Your task to perform on an android device: delete browsing data in the chrome app Image 0: 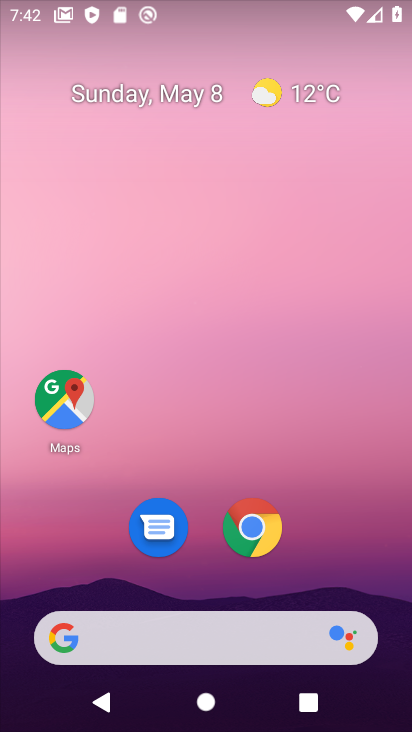
Step 0: drag from (323, 581) to (287, 206)
Your task to perform on an android device: delete browsing data in the chrome app Image 1: 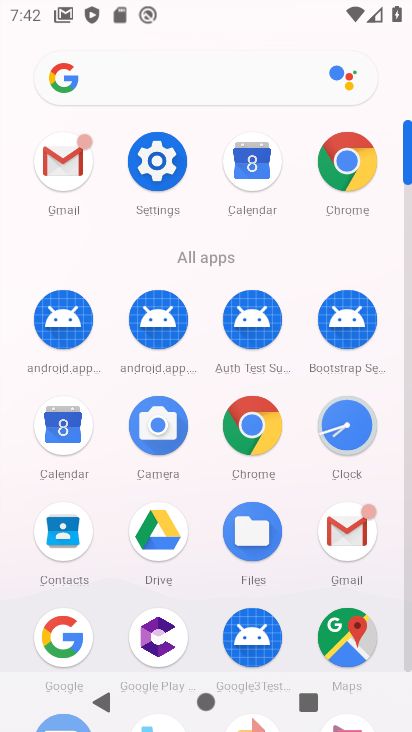
Step 1: click (328, 177)
Your task to perform on an android device: delete browsing data in the chrome app Image 2: 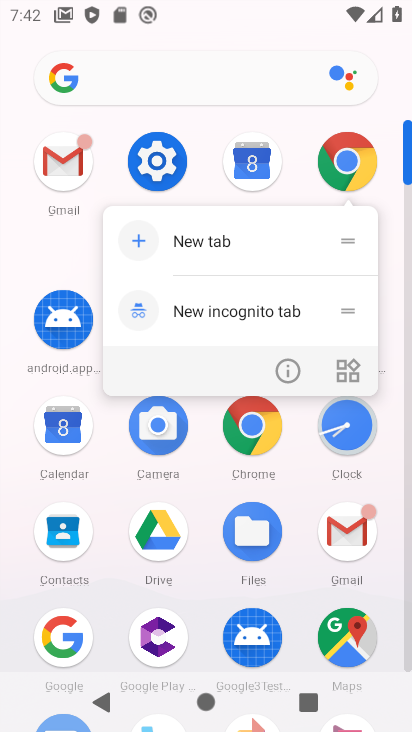
Step 2: click (328, 177)
Your task to perform on an android device: delete browsing data in the chrome app Image 3: 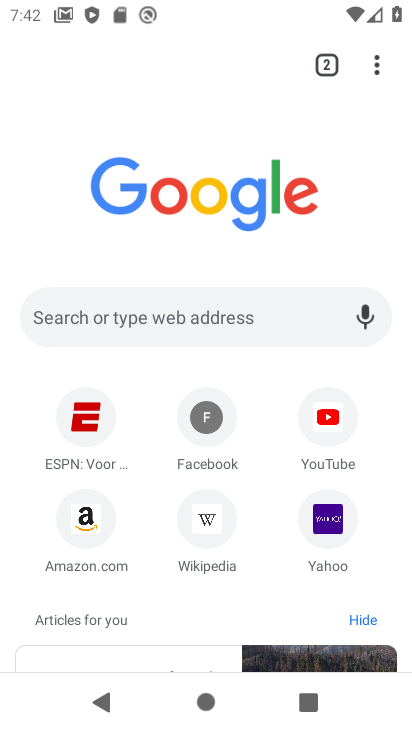
Step 3: drag from (374, 63) to (100, 375)
Your task to perform on an android device: delete browsing data in the chrome app Image 4: 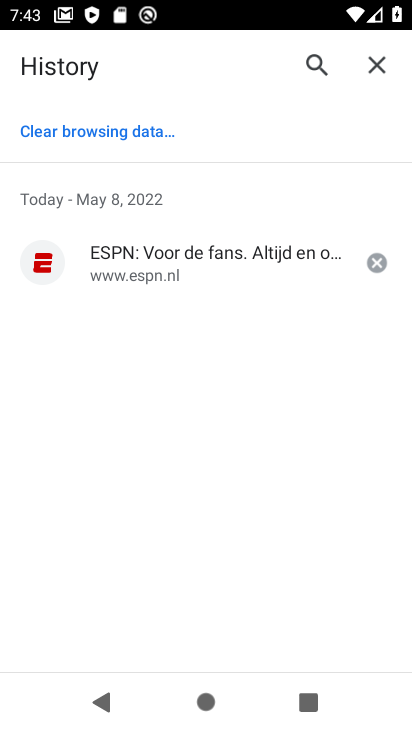
Step 4: click (105, 116)
Your task to perform on an android device: delete browsing data in the chrome app Image 5: 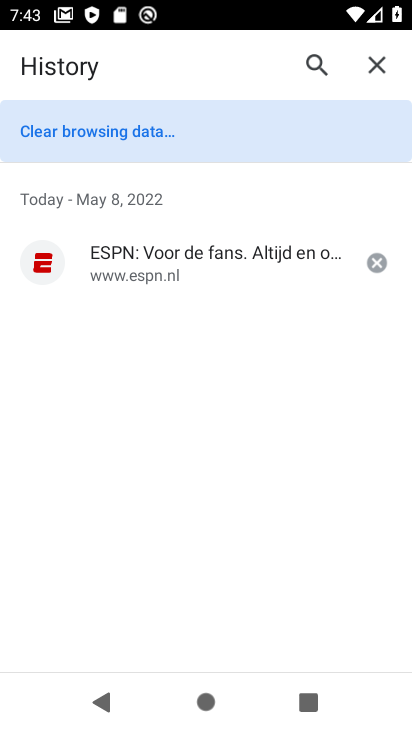
Step 5: click (102, 127)
Your task to perform on an android device: delete browsing data in the chrome app Image 6: 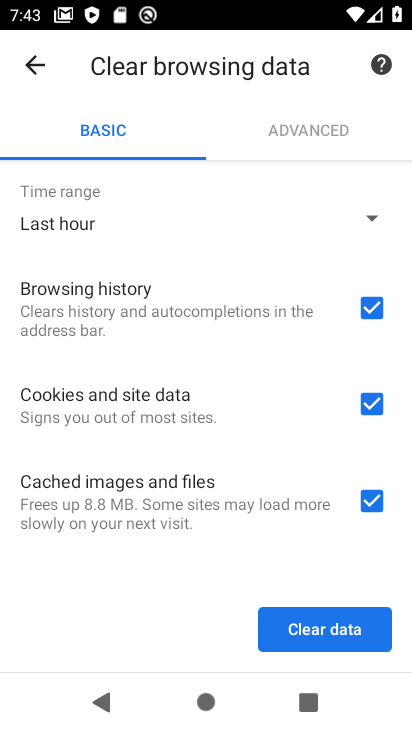
Step 6: click (333, 634)
Your task to perform on an android device: delete browsing data in the chrome app Image 7: 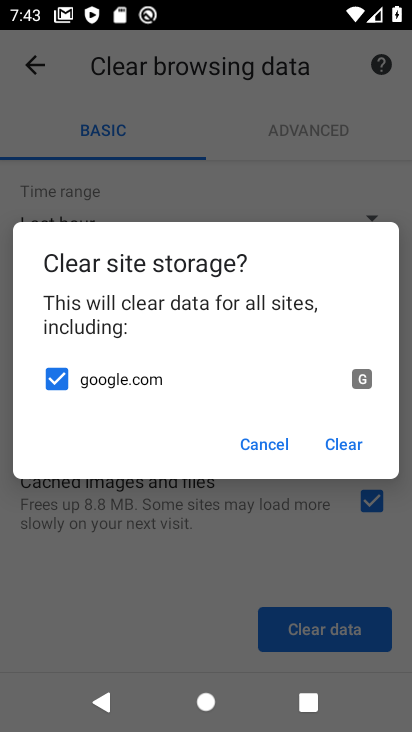
Step 7: click (344, 448)
Your task to perform on an android device: delete browsing data in the chrome app Image 8: 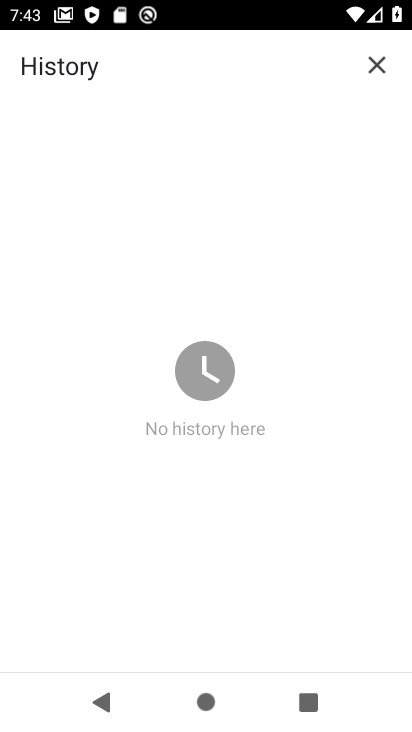
Step 8: task complete